Your task to perform on an android device: Go to Amazon Image 0: 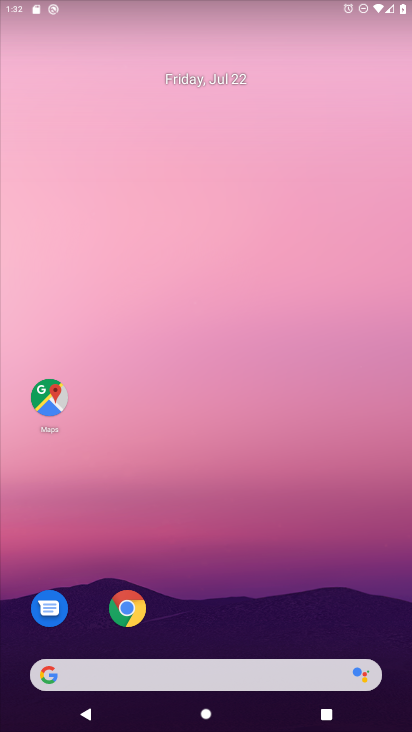
Step 0: drag from (376, 627) to (143, 45)
Your task to perform on an android device: Go to Amazon Image 1: 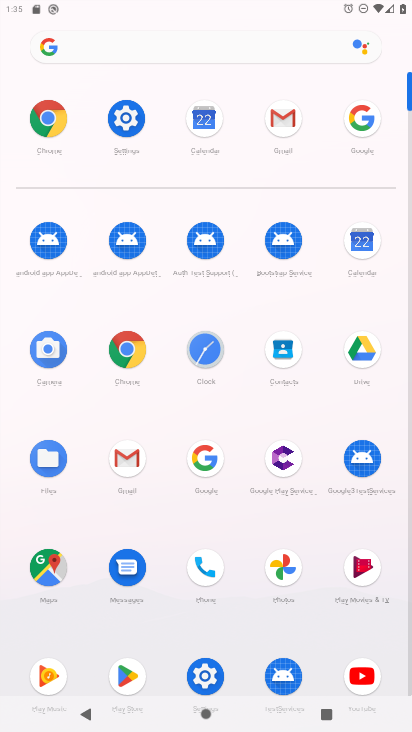
Step 1: click (207, 434)
Your task to perform on an android device: Go to Amazon Image 2: 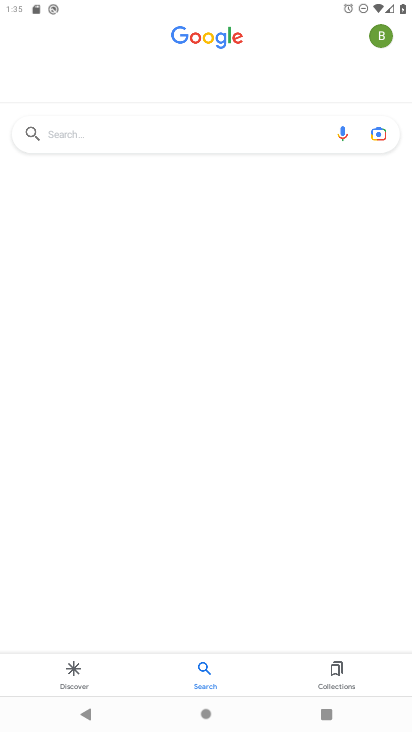
Step 2: click (139, 135)
Your task to perform on an android device: Go to Amazon Image 3: 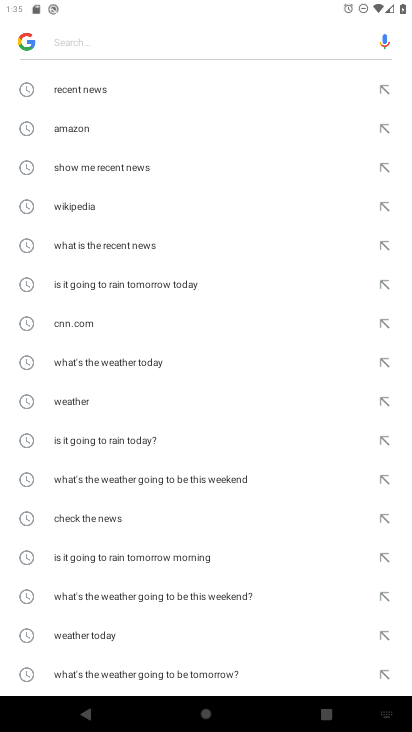
Step 3: click (100, 133)
Your task to perform on an android device: Go to Amazon Image 4: 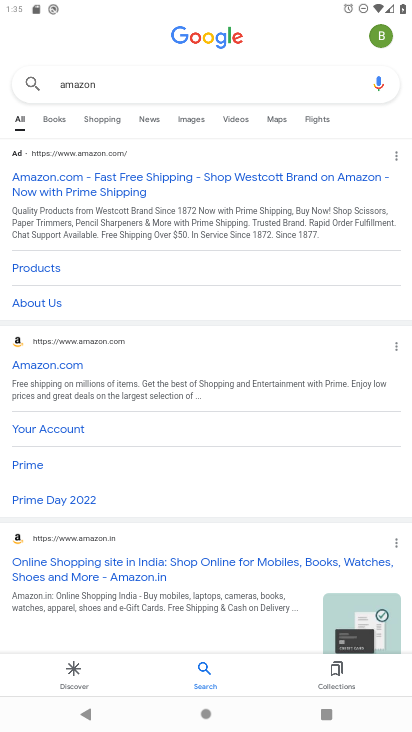
Step 4: task complete